Your task to perform on an android device: toggle data saver in the chrome app Image 0: 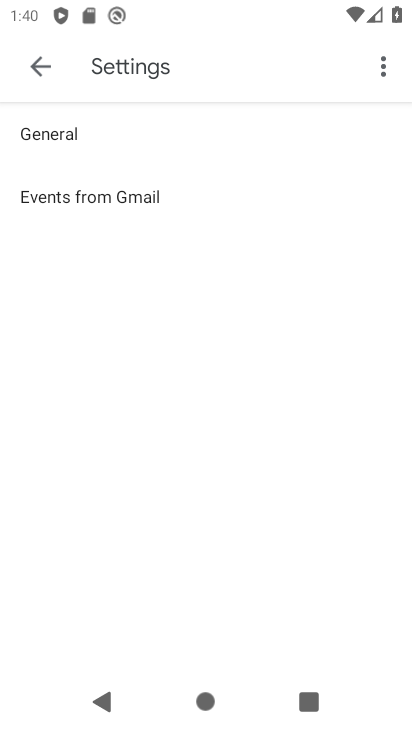
Step 0: press home button
Your task to perform on an android device: toggle data saver in the chrome app Image 1: 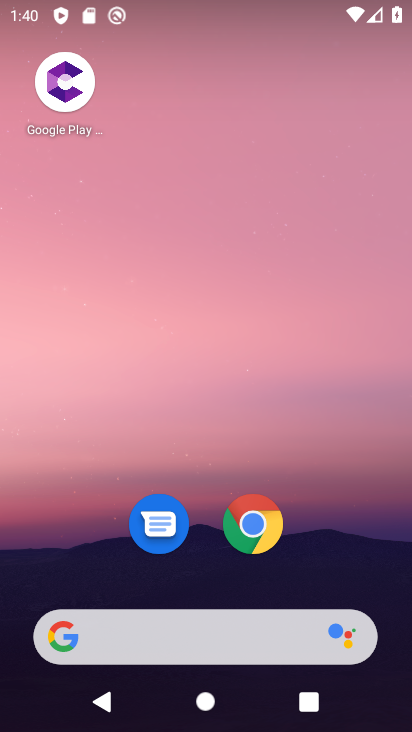
Step 1: click (252, 535)
Your task to perform on an android device: toggle data saver in the chrome app Image 2: 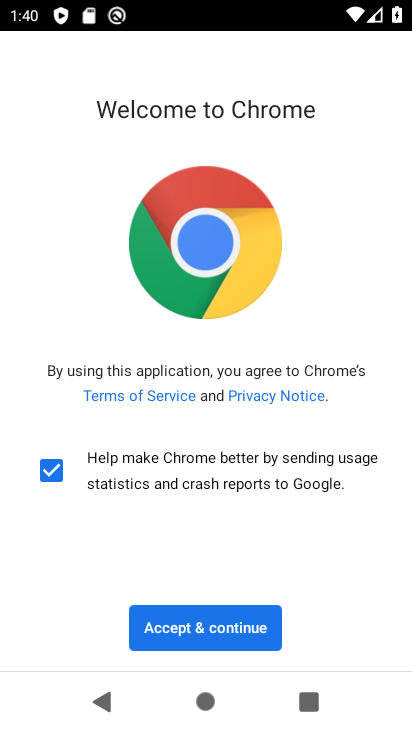
Step 2: click (210, 617)
Your task to perform on an android device: toggle data saver in the chrome app Image 3: 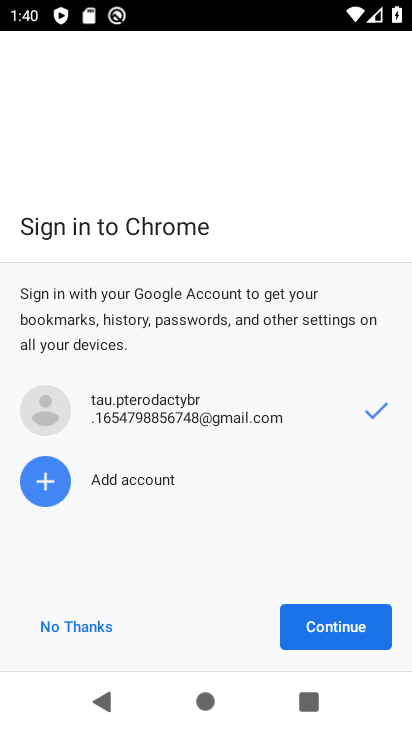
Step 3: click (355, 614)
Your task to perform on an android device: toggle data saver in the chrome app Image 4: 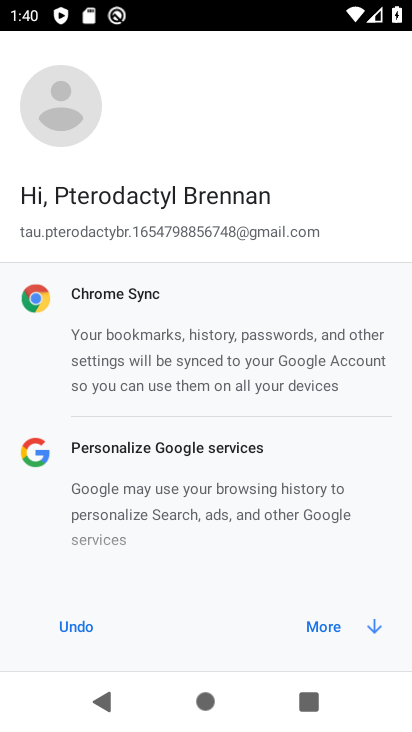
Step 4: click (372, 620)
Your task to perform on an android device: toggle data saver in the chrome app Image 5: 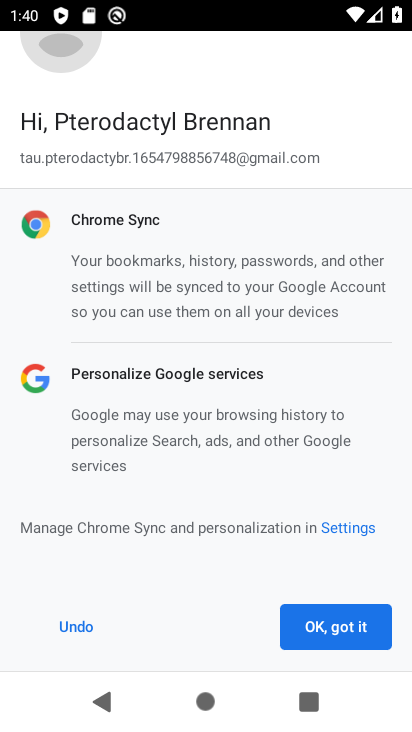
Step 5: click (372, 618)
Your task to perform on an android device: toggle data saver in the chrome app Image 6: 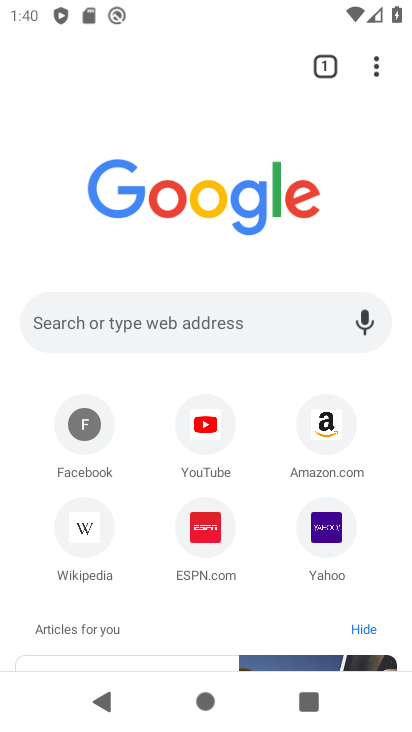
Step 6: click (370, 75)
Your task to perform on an android device: toggle data saver in the chrome app Image 7: 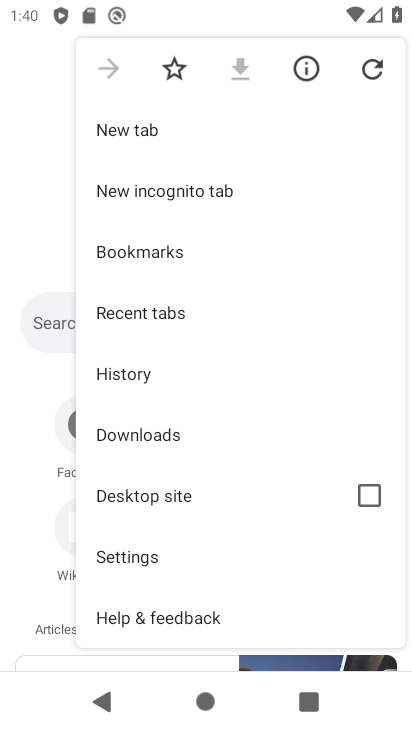
Step 7: click (123, 562)
Your task to perform on an android device: toggle data saver in the chrome app Image 8: 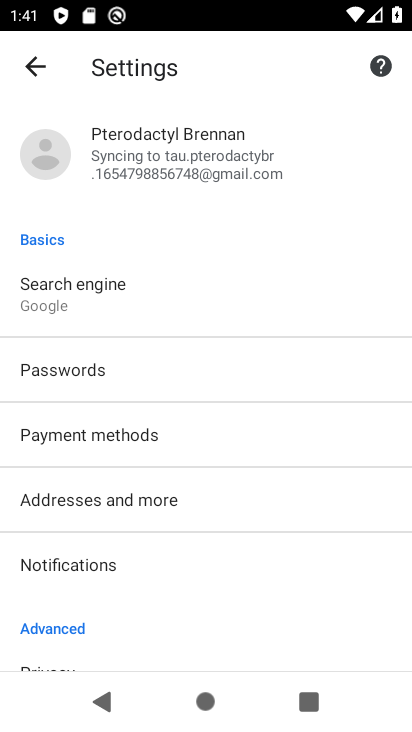
Step 8: drag from (123, 562) to (122, 381)
Your task to perform on an android device: toggle data saver in the chrome app Image 9: 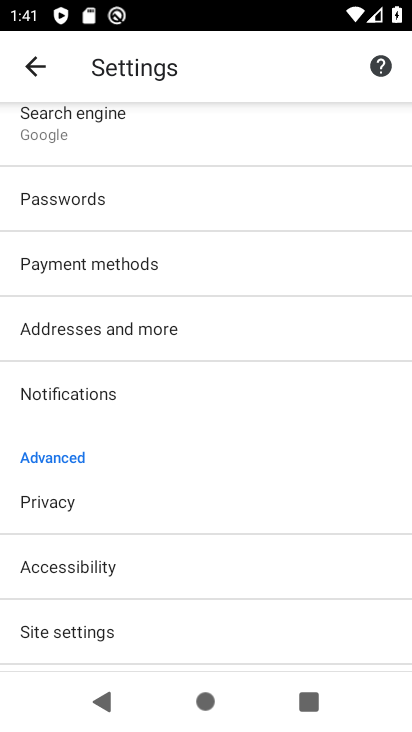
Step 9: drag from (90, 607) to (148, 507)
Your task to perform on an android device: toggle data saver in the chrome app Image 10: 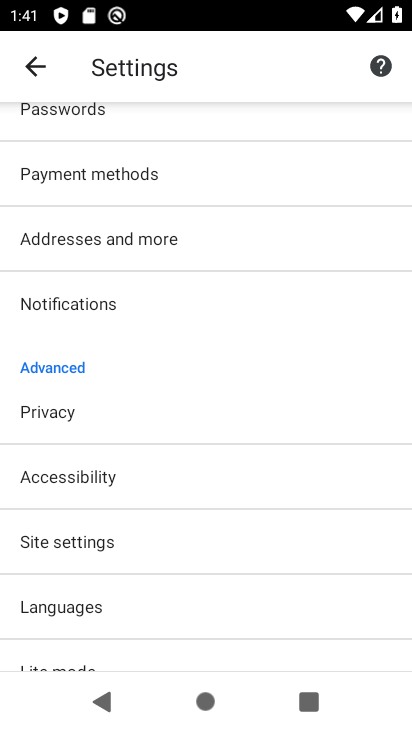
Step 10: drag from (89, 628) to (128, 550)
Your task to perform on an android device: toggle data saver in the chrome app Image 11: 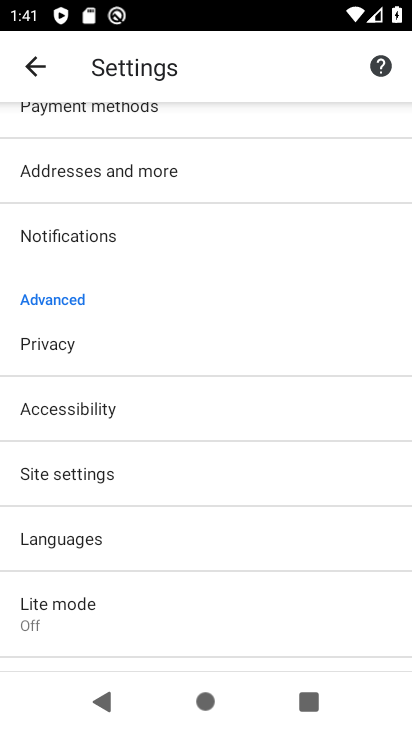
Step 11: click (94, 603)
Your task to perform on an android device: toggle data saver in the chrome app Image 12: 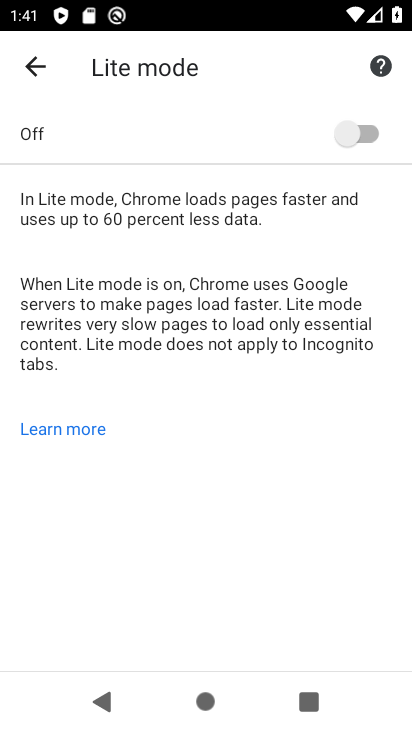
Step 12: click (367, 125)
Your task to perform on an android device: toggle data saver in the chrome app Image 13: 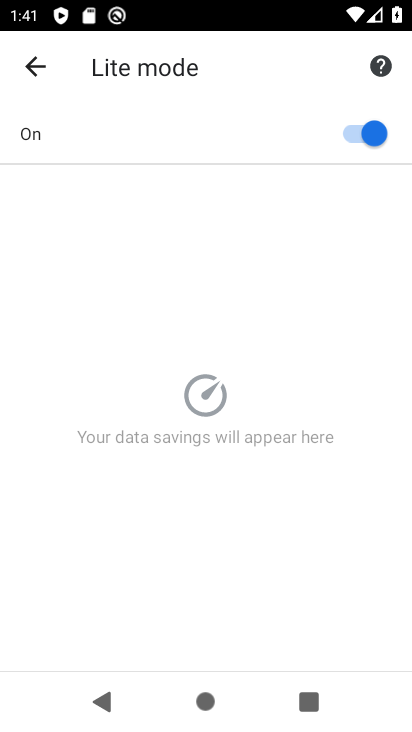
Step 13: task complete